Your task to perform on an android device: turn off location history Image 0: 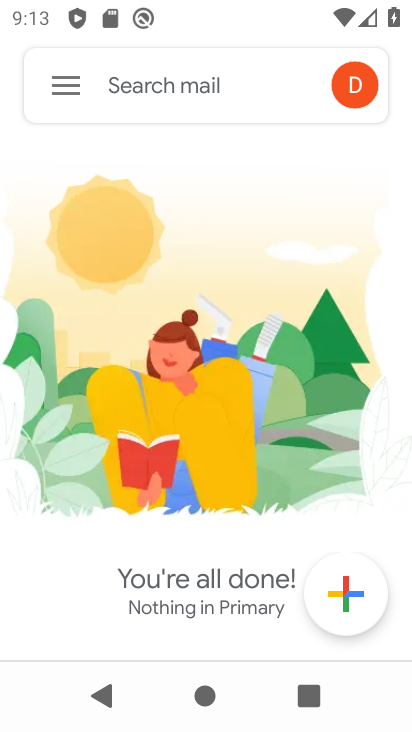
Step 0: press home button
Your task to perform on an android device: turn off location history Image 1: 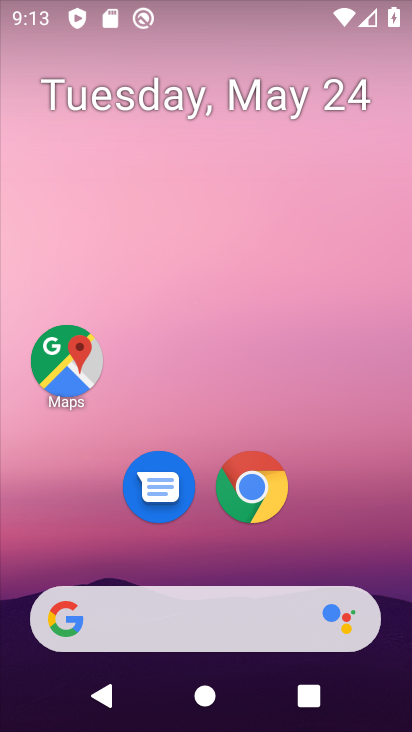
Step 1: click (67, 367)
Your task to perform on an android device: turn off location history Image 2: 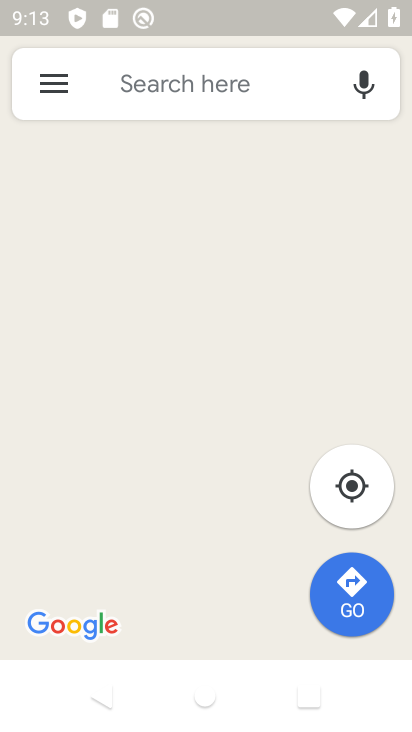
Step 2: click (48, 83)
Your task to perform on an android device: turn off location history Image 3: 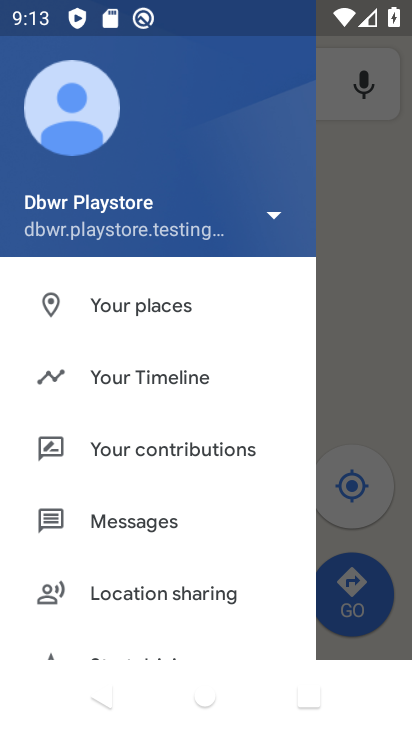
Step 3: click (134, 373)
Your task to perform on an android device: turn off location history Image 4: 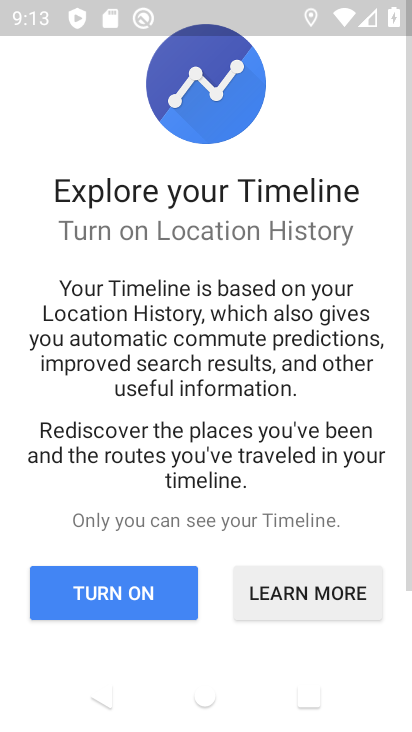
Step 4: drag from (227, 537) to (196, 255)
Your task to perform on an android device: turn off location history Image 5: 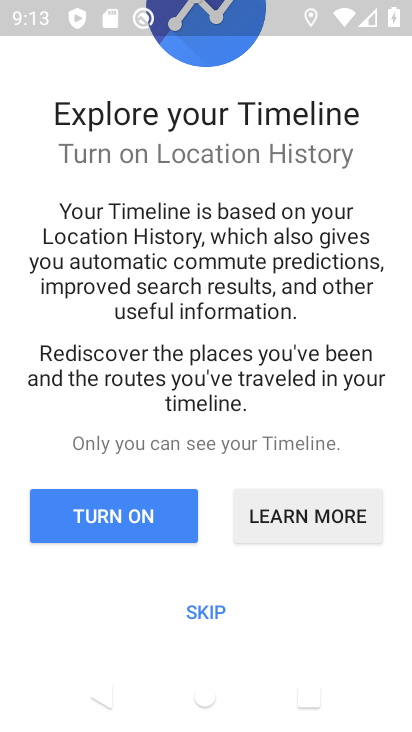
Step 5: click (200, 614)
Your task to perform on an android device: turn off location history Image 6: 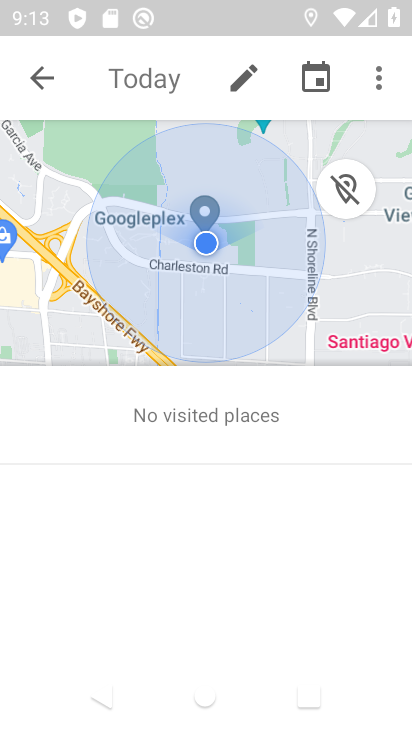
Step 6: click (378, 73)
Your task to perform on an android device: turn off location history Image 7: 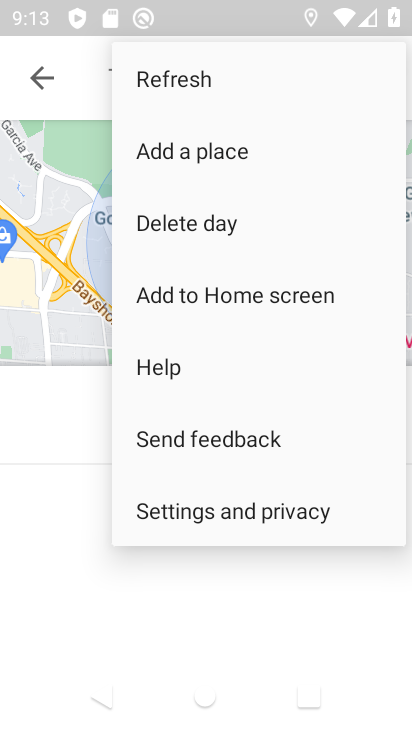
Step 7: click (171, 517)
Your task to perform on an android device: turn off location history Image 8: 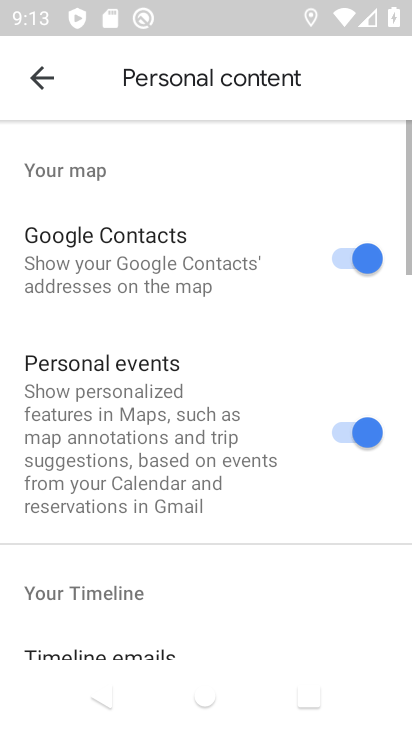
Step 8: drag from (168, 602) to (183, 28)
Your task to perform on an android device: turn off location history Image 9: 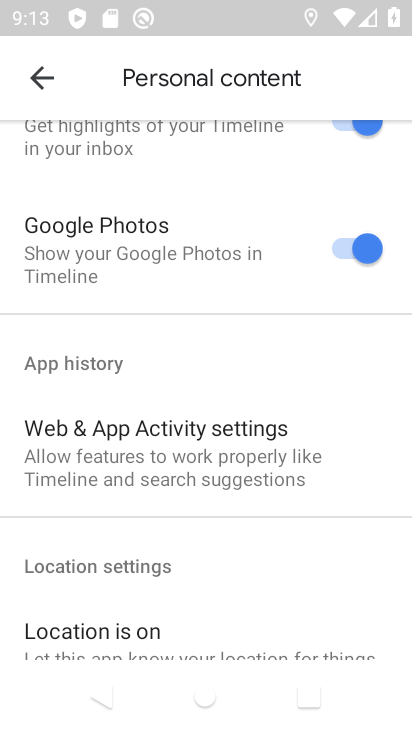
Step 9: drag from (155, 477) to (148, 160)
Your task to perform on an android device: turn off location history Image 10: 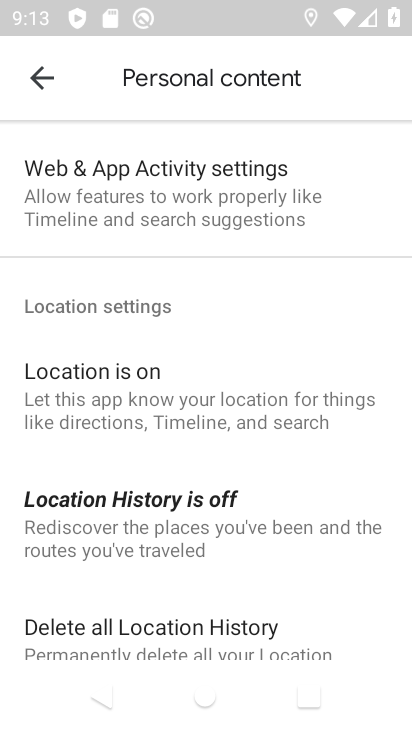
Step 10: click (111, 514)
Your task to perform on an android device: turn off location history Image 11: 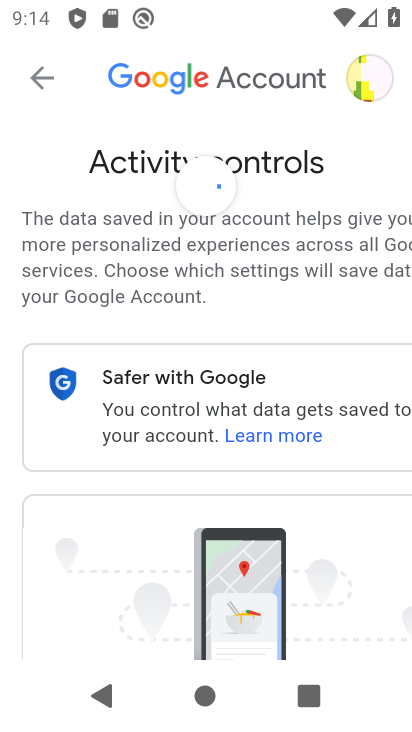
Step 11: task complete